Your task to perform on an android device: Go to eBay Image 0: 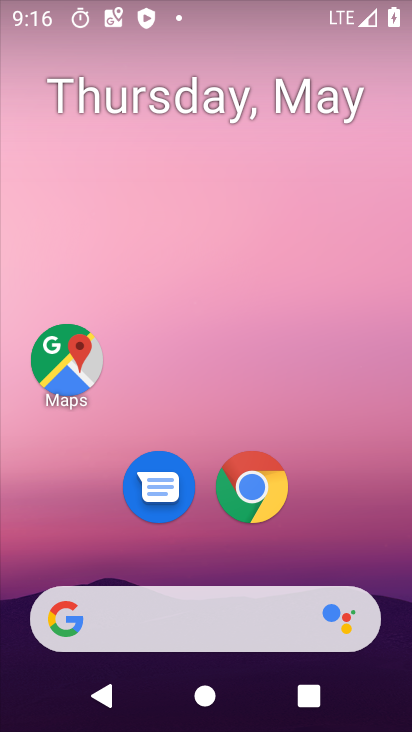
Step 0: drag from (276, 556) to (322, 77)
Your task to perform on an android device: Go to eBay Image 1: 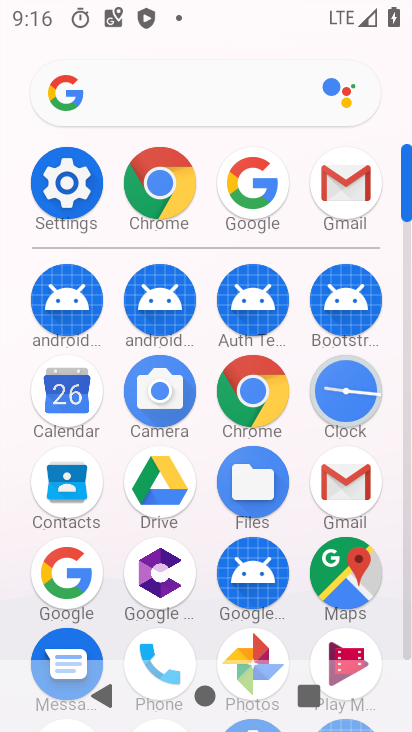
Step 1: click (145, 152)
Your task to perform on an android device: Go to eBay Image 2: 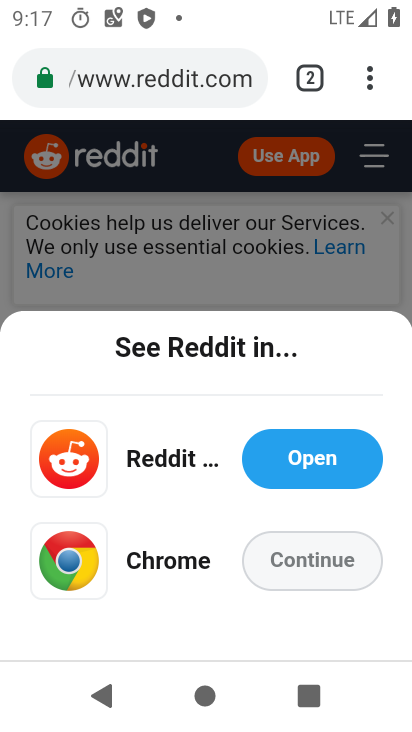
Step 2: click (177, 59)
Your task to perform on an android device: Go to eBay Image 3: 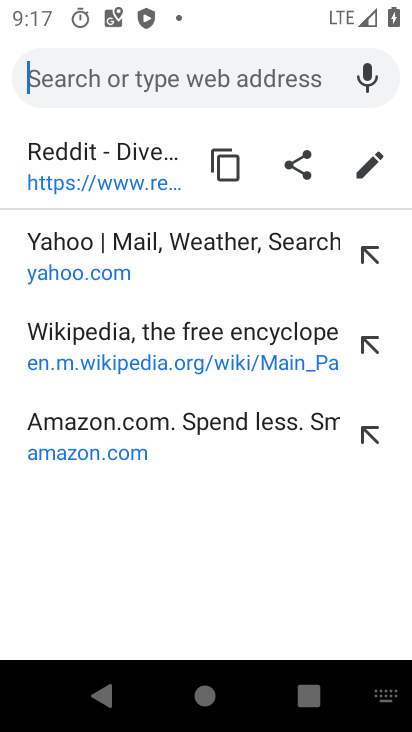
Step 3: type "ebay"
Your task to perform on an android device: Go to eBay Image 4: 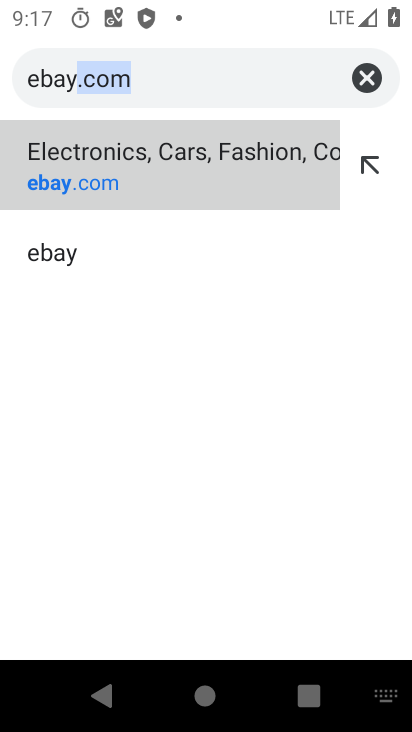
Step 4: click (161, 179)
Your task to perform on an android device: Go to eBay Image 5: 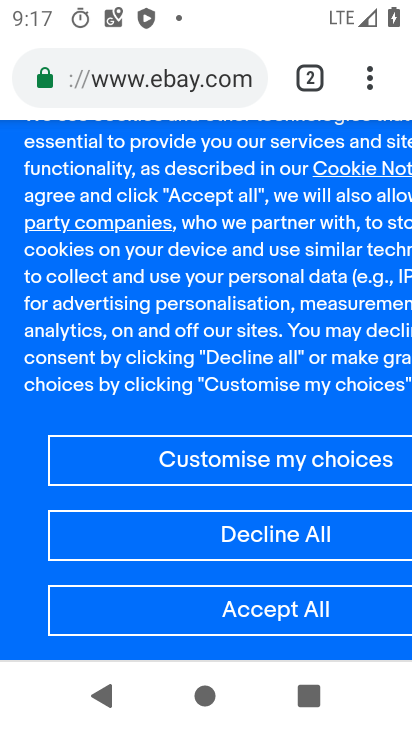
Step 5: task complete